Your task to perform on an android device: See recent photos Image 0: 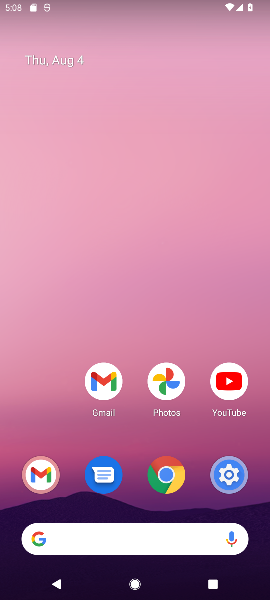
Step 0: click (167, 389)
Your task to perform on an android device: See recent photos Image 1: 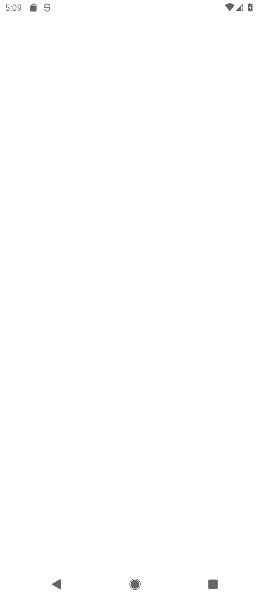
Step 1: press home button
Your task to perform on an android device: See recent photos Image 2: 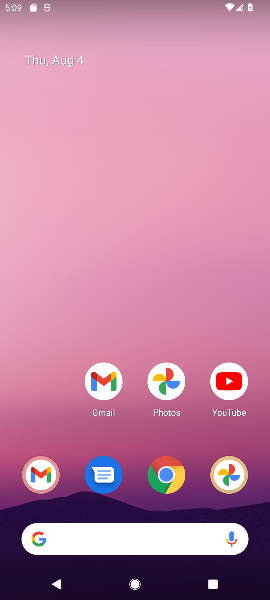
Step 2: click (168, 376)
Your task to perform on an android device: See recent photos Image 3: 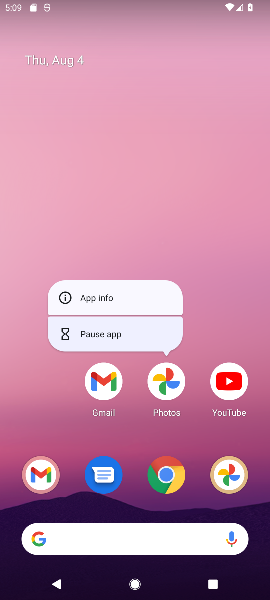
Step 3: click (131, 297)
Your task to perform on an android device: See recent photos Image 4: 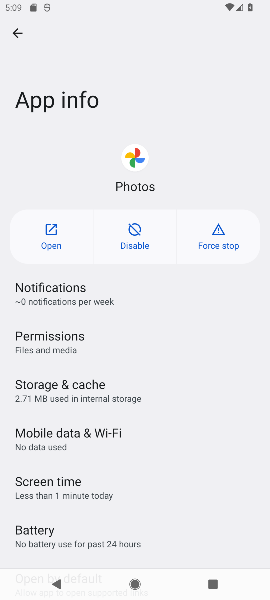
Step 4: click (101, 395)
Your task to perform on an android device: See recent photos Image 5: 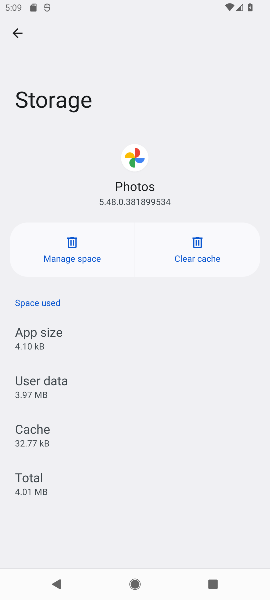
Step 5: click (185, 249)
Your task to perform on an android device: See recent photos Image 6: 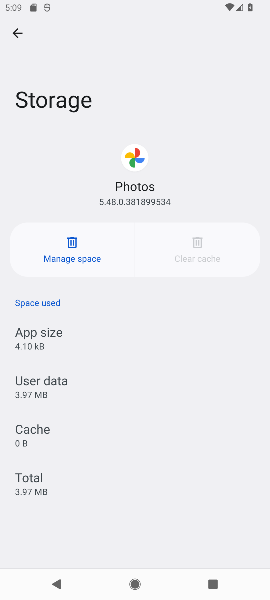
Step 6: click (72, 236)
Your task to perform on an android device: See recent photos Image 7: 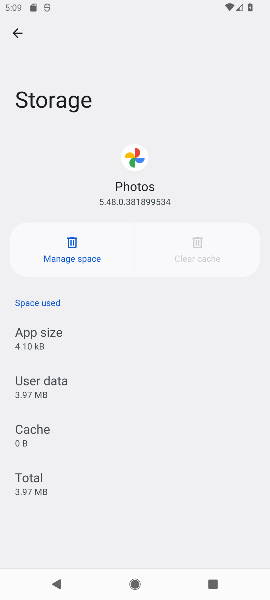
Step 7: press home button
Your task to perform on an android device: See recent photos Image 8: 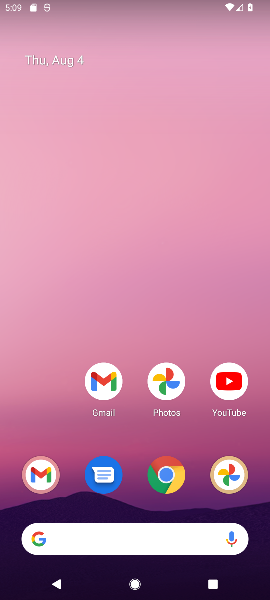
Step 8: click (174, 371)
Your task to perform on an android device: See recent photos Image 9: 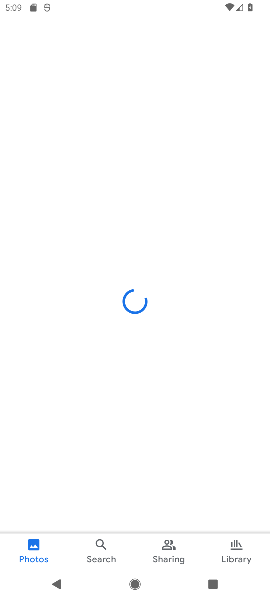
Step 9: task complete